Your task to perform on an android device: Open the calendar and show me this week's events? Image 0: 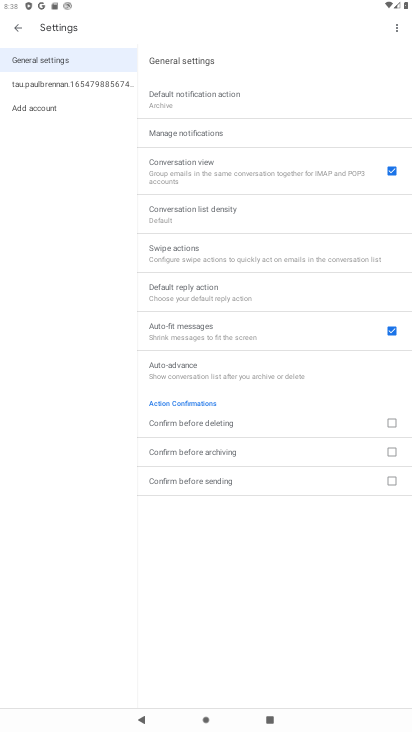
Step 0: press home button
Your task to perform on an android device: Open the calendar and show me this week's events? Image 1: 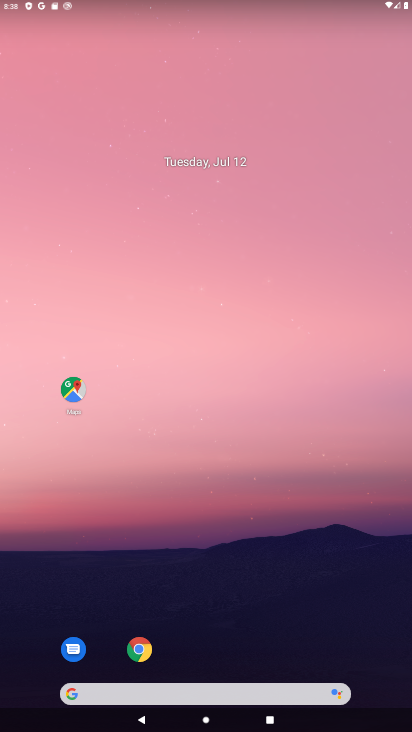
Step 1: drag from (300, 642) to (298, 96)
Your task to perform on an android device: Open the calendar and show me this week's events? Image 2: 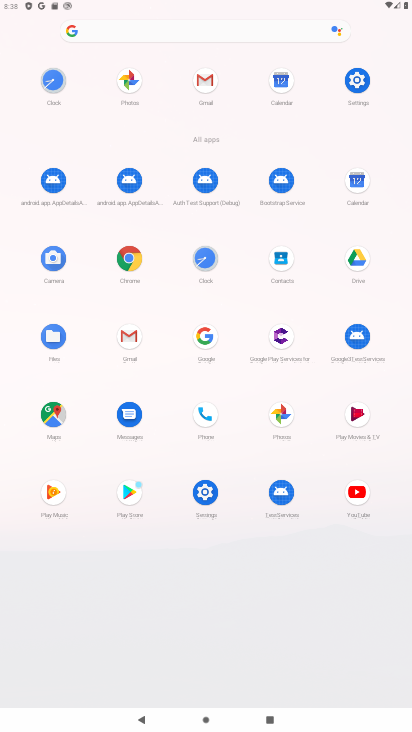
Step 2: click (290, 79)
Your task to perform on an android device: Open the calendar and show me this week's events? Image 3: 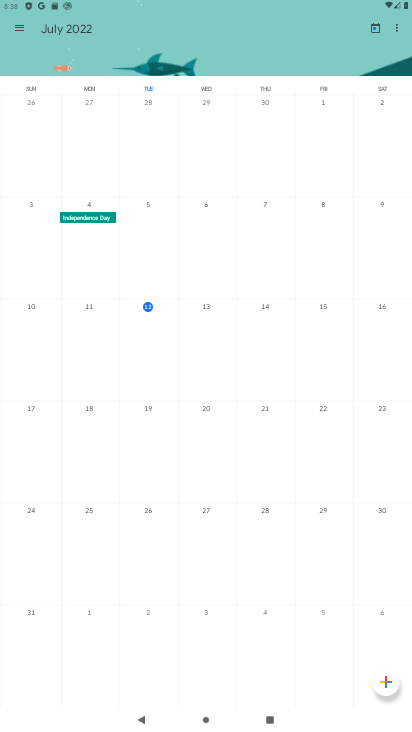
Step 3: task complete